Your task to perform on an android device: Search for pizza restaurants on Maps Image 0: 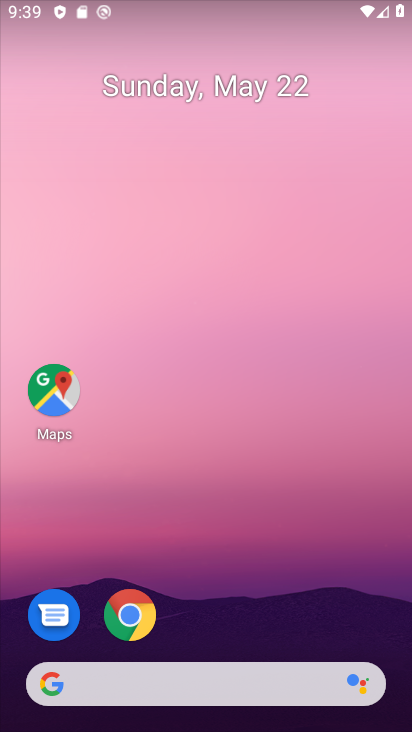
Step 0: click (66, 380)
Your task to perform on an android device: Search for pizza restaurants on Maps Image 1: 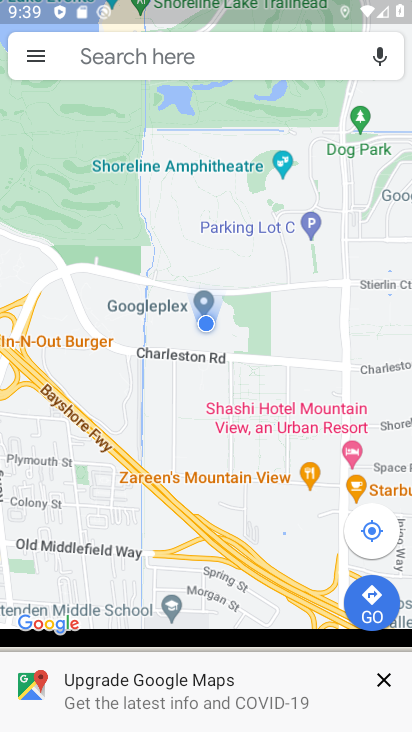
Step 1: click (179, 46)
Your task to perform on an android device: Search for pizza restaurants on Maps Image 2: 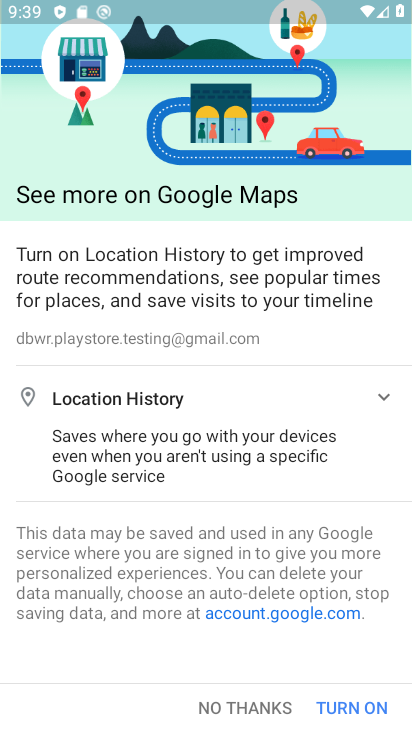
Step 2: click (253, 706)
Your task to perform on an android device: Search for pizza restaurants on Maps Image 3: 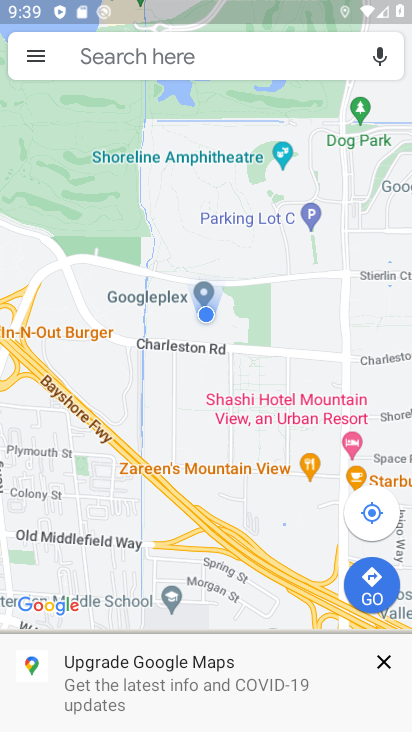
Step 3: click (253, 55)
Your task to perform on an android device: Search for pizza restaurants on Maps Image 4: 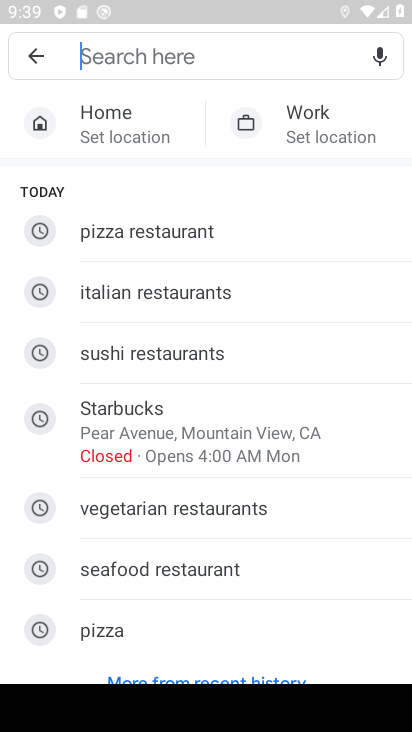
Step 4: type "pizza restaurants"
Your task to perform on an android device: Search for pizza restaurants on Maps Image 5: 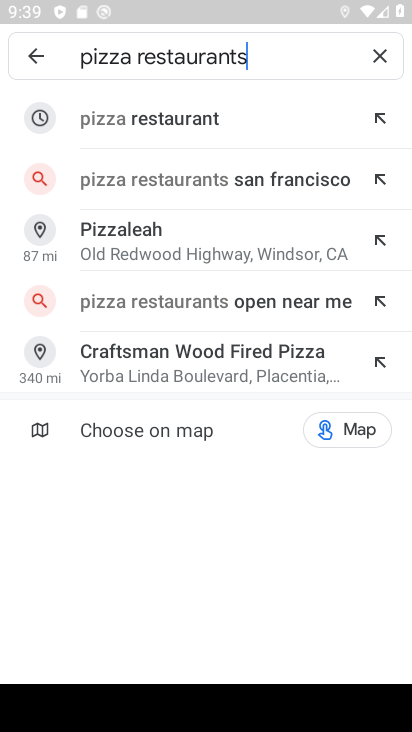
Step 5: press enter
Your task to perform on an android device: Search for pizza restaurants on Maps Image 6: 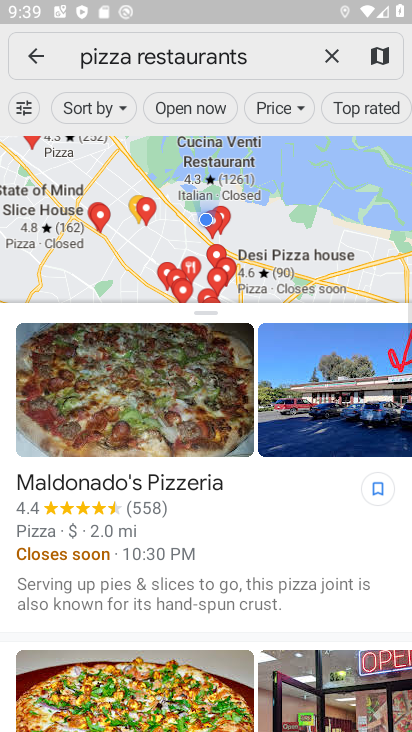
Step 6: task complete